Your task to perform on an android device: Search for pizza restaurants on Maps Image 0: 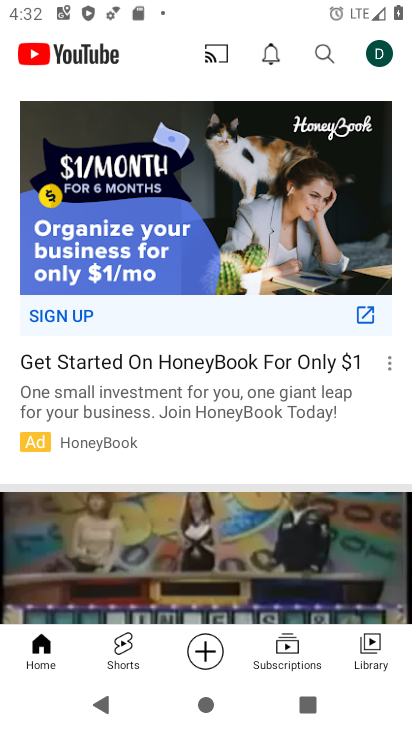
Step 0: press home button
Your task to perform on an android device: Search for pizza restaurants on Maps Image 1: 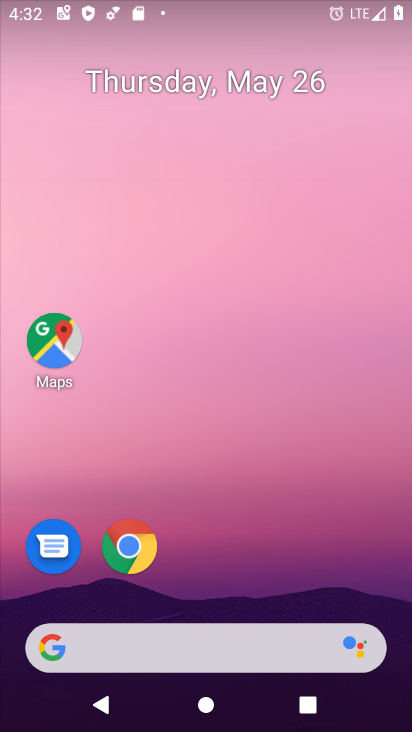
Step 1: click (54, 323)
Your task to perform on an android device: Search for pizza restaurants on Maps Image 2: 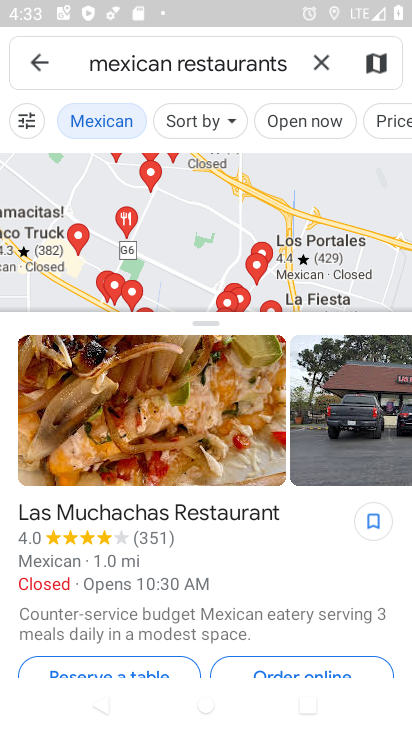
Step 2: click (309, 64)
Your task to perform on an android device: Search for pizza restaurants on Maps Image 3: 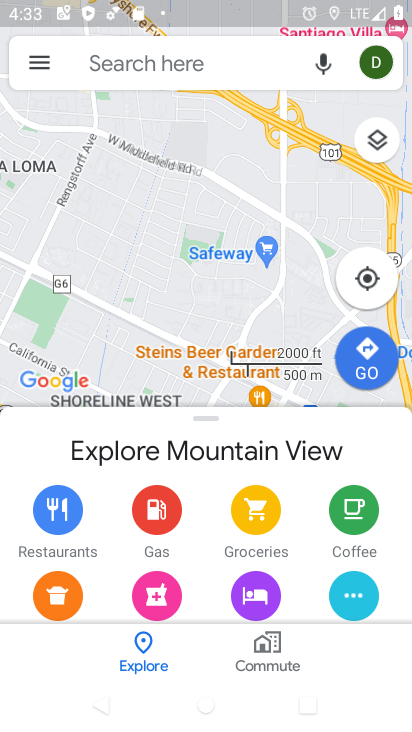
Step 3: click (152, 56)
Your task to perform on an android device: Search for pizza restaurants on Maps Image 4: 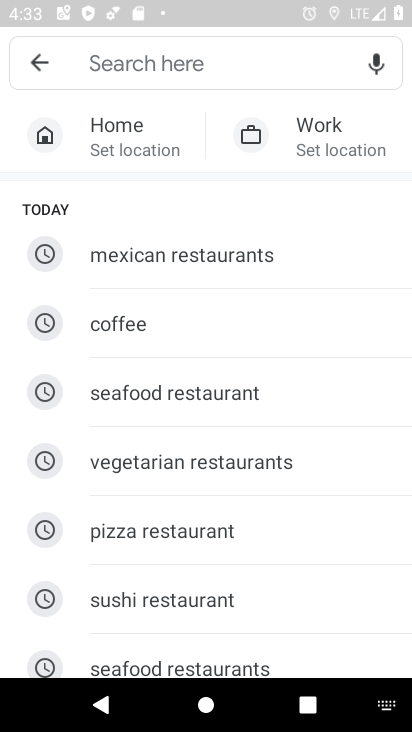
Step 4: click (173, 530)
Your task to perform on an android device: Search for pizza restaurants on Maps Image 5: 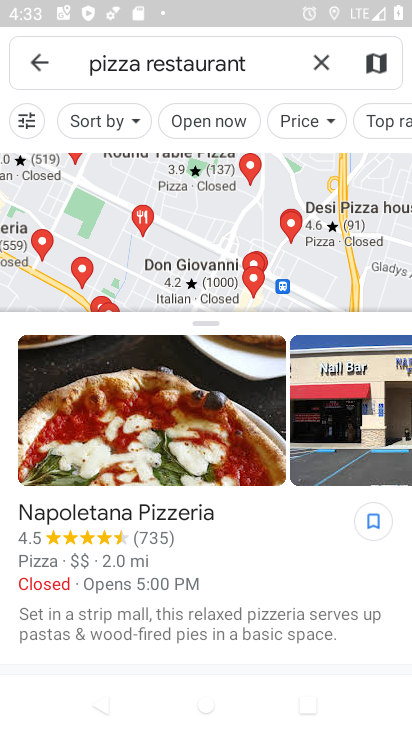
Step 5: task complete